Your task to perform on an android device: allow notifications from all sites in the chrome app Image 0: 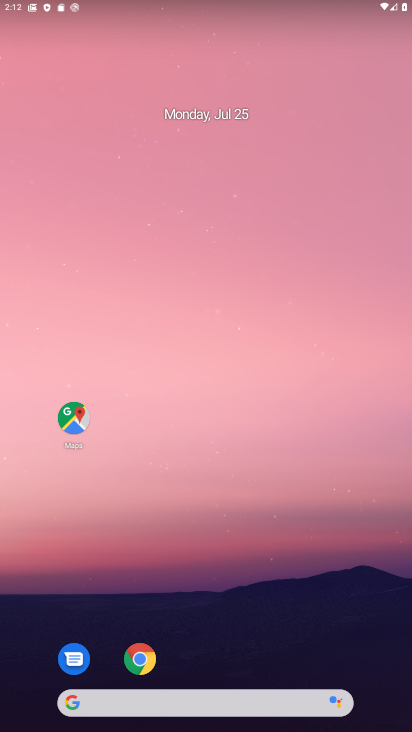
Step 0: drag from (198, 688) to (200, 90)
Your task to perform on an android device: allow notifications from all sites in the chrome app Image 1: 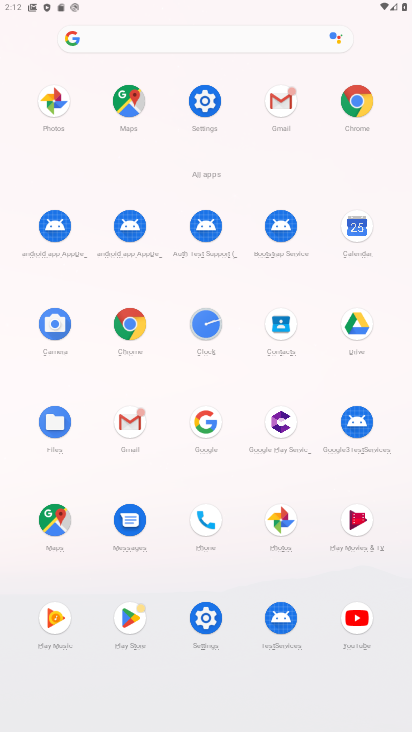
Step 1: click (360, 100)
Your task to perform on an android device: allow notifications from all sites in the chrome app Image 2: 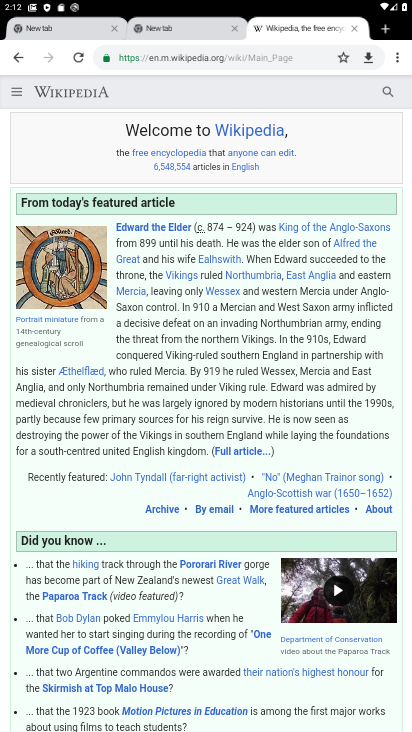
Step 2: click (349, 32)
Your task to perform on an android device: allow notifications from all sites in the chrome app Image 3: 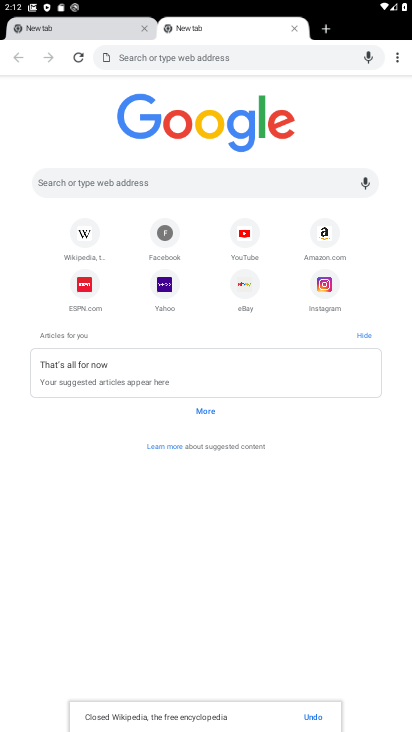
Step 3: click (297, 32)
Your task to perform on an android device: allow notifications from all sites in the chrome app Image 4: 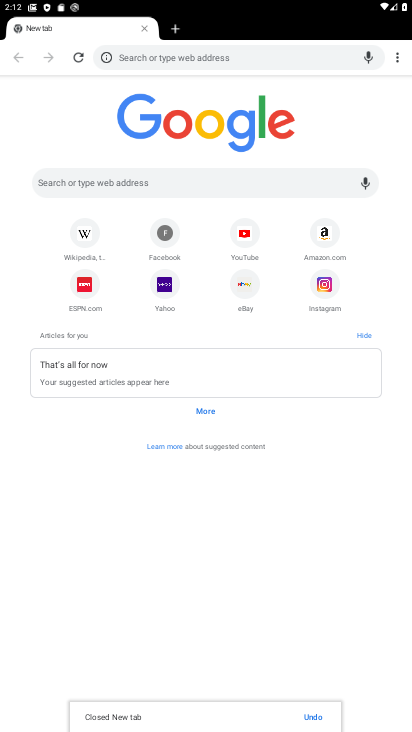
Step 4: click (396, 56)
Your task to perform on an android device: allow notifications from all sites in the chrome app Image 5: 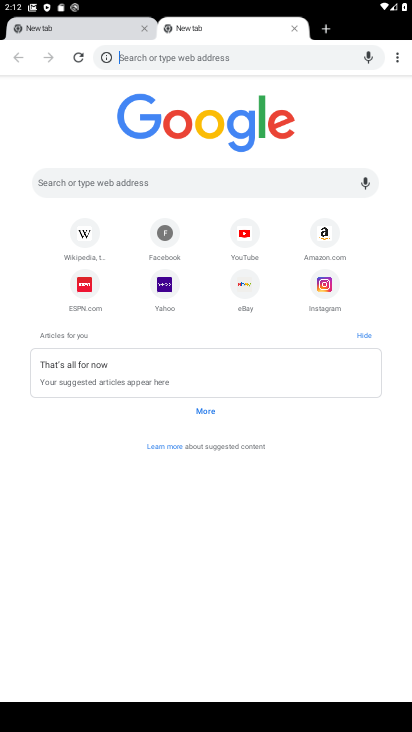
Step 5: click (396, 56)
Your task to perform on an android device: allow notifications from all sites in the chrome app Image 6: 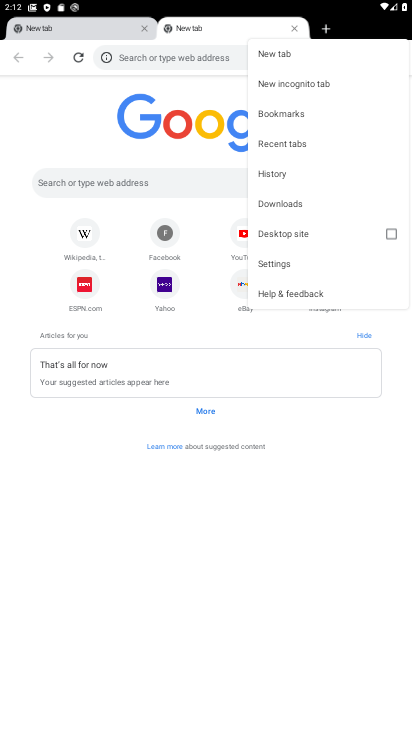
Step 6: click (274, 262)
Your task to perform on an android device: allow notifications from all sites in the chrome app Image 7: 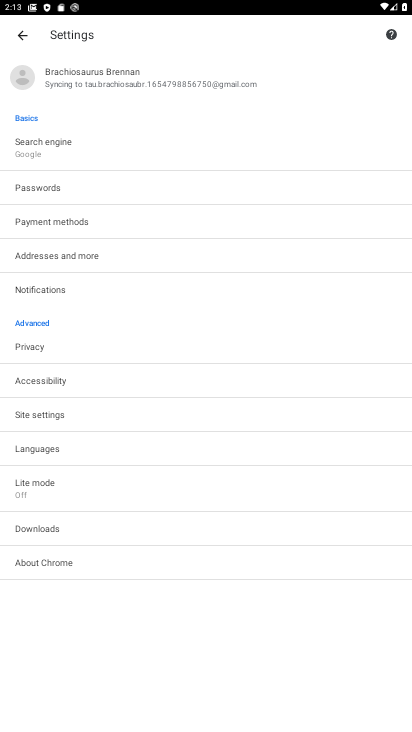
Step 7: click (30, 414)
Your task to perform on an android device: allow notifications from all sites in the chrome app Image 8: 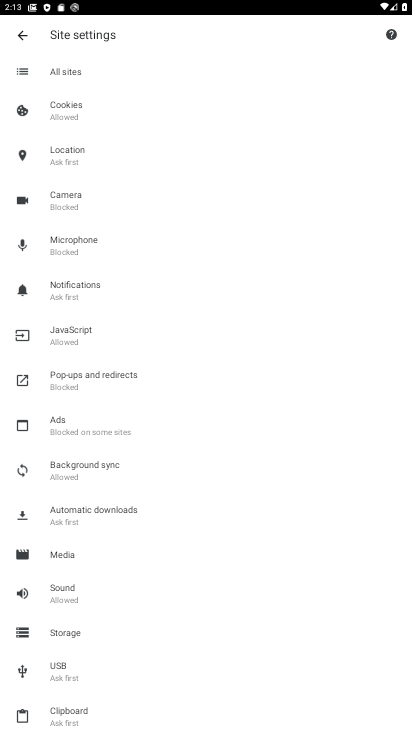
Step 8: click (68, 294)
Your task to perform on an android device: allow notifications from all sites in the chrome app Image 9: 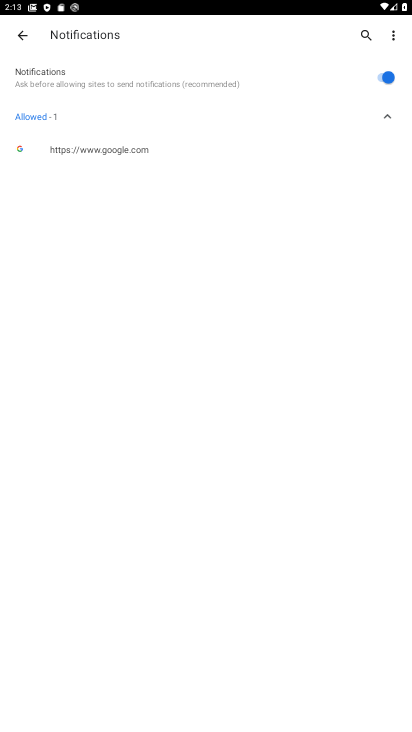
Step 9: task complete